Your task to perform on an android device: turn on translation in the chrome app Image 0: 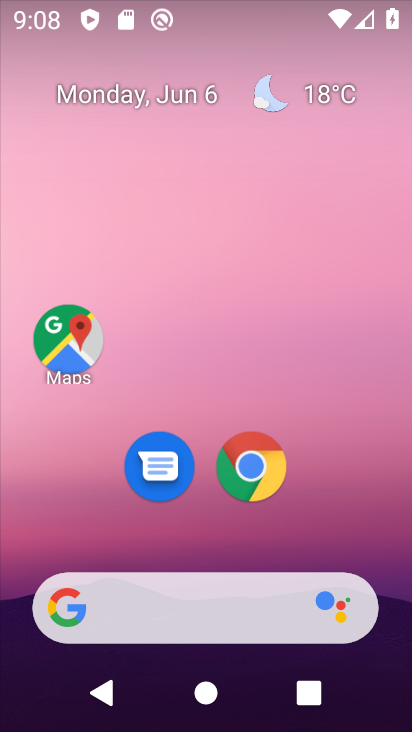
Step 0: drag from (189, 530) to (157, 176)
Your task to perform on an android device: turn on translation in the chrome app Image 1: 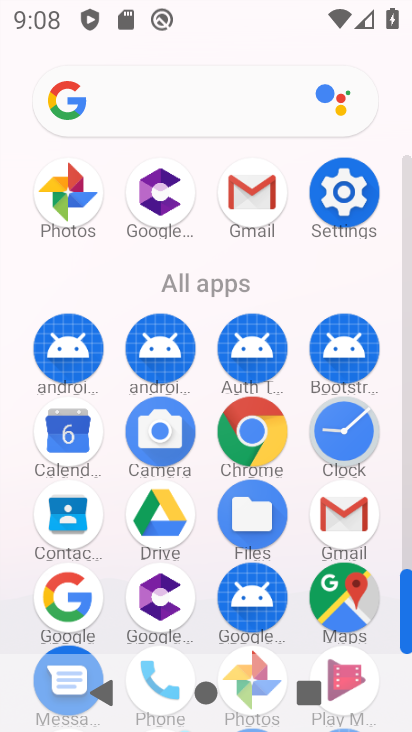
Step 1: click (267, 436)
Your task to perform on an android device: turn on translation in the chrome app Image 2: 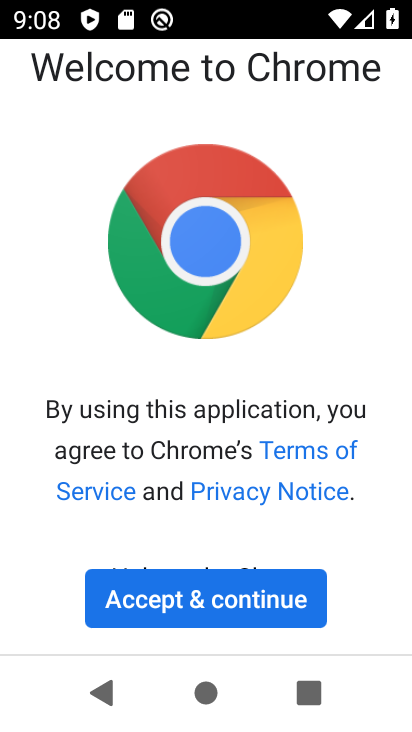
Step 2: click (172, 616)
Your task to perform on an android device: turn on translation in the chrome app Image 3: 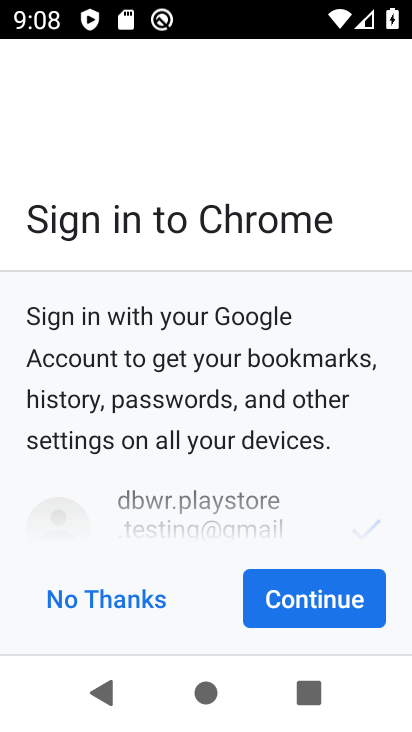
Step 3: click (279, 610)
Your task to perform on an android device: turn on translation in the chrome app Image 4: 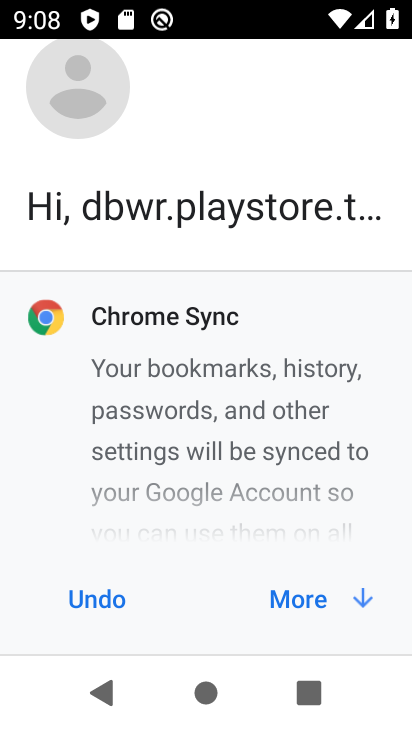
Step 4: click (292, 596)
Your task to perform on an android device: turn on translation in the chrome app Image 5: 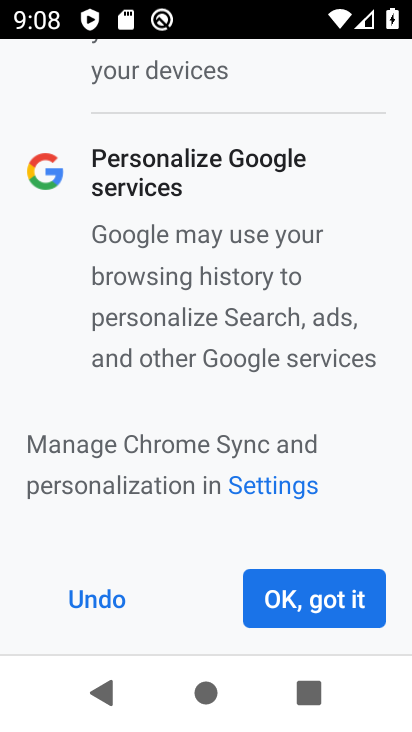
Step 5: click (291, 595)
Your task to perform on an android device: turn on translation in the chrome app Image 6: 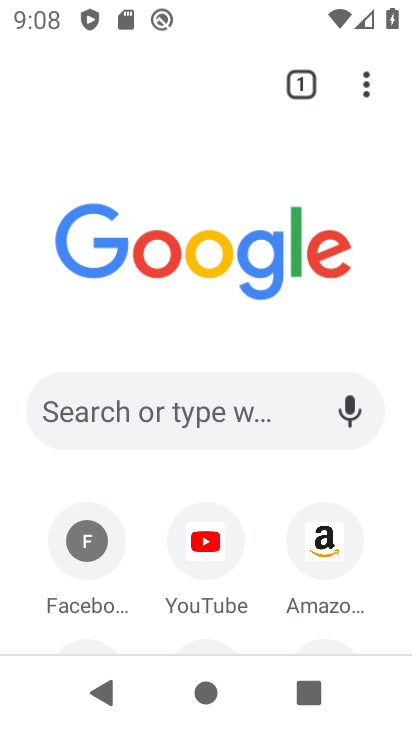
Step 6: click (198, 418)
Your task to perform on an android device: turn on translation in the chrome app Image 7: 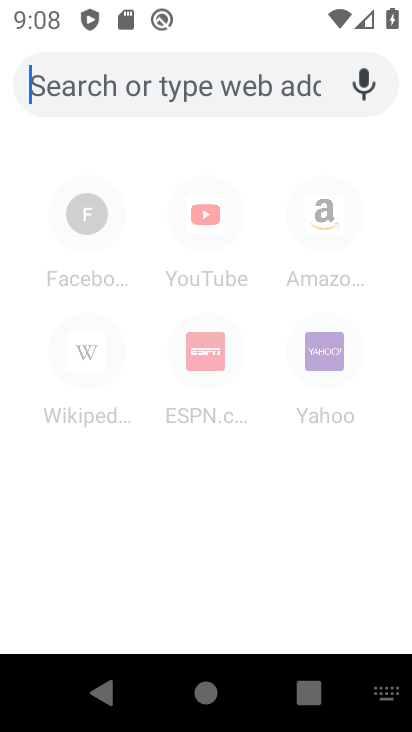
Step 7: press back button
Your task to perform on an android device: turn on translation in the chrome app Image 8: 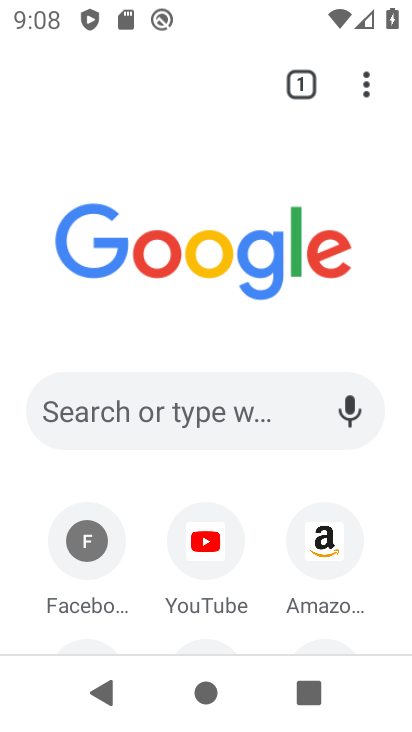
Step 8: click (373, 94)
Your task to perform on an android device: turn on translation in the chrome app Image 9: 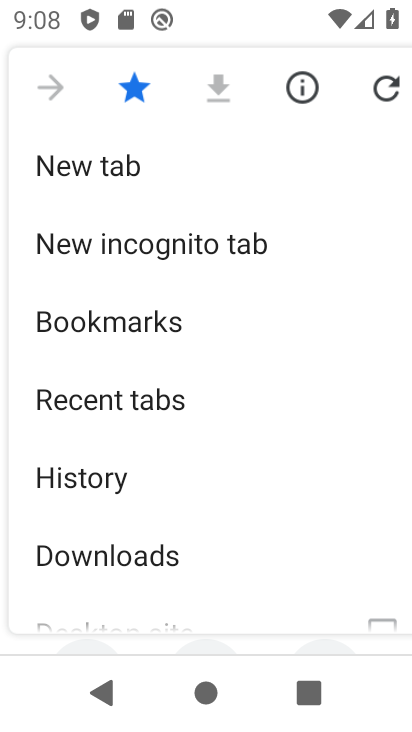
Step 9: drag from (191, 543) to (148, 229)
Your task to perform on an android device: turn on translation in the chrome app Image 10: 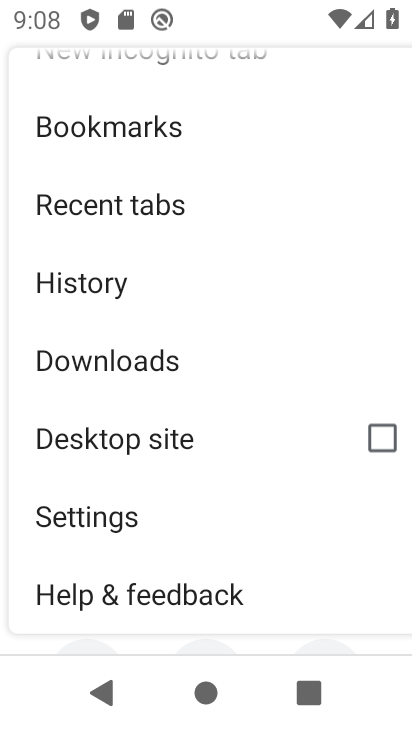
Step 10: click (96, 515)
Your task to perform on an android device: turn on translation in the chrome app Image 11: 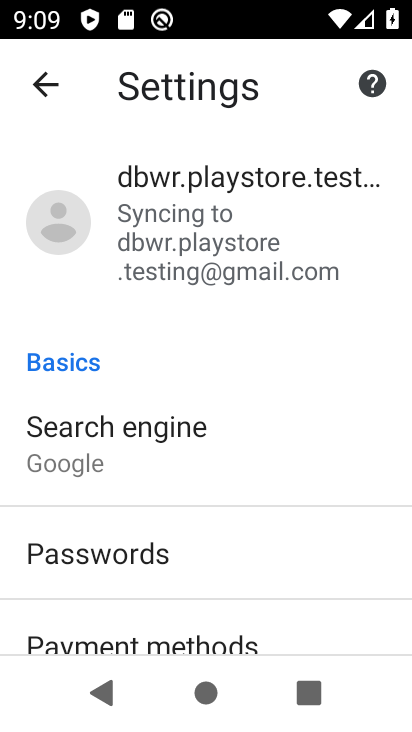
Step 11: drag from (185, 608) to (200, 355)
Your task to perform on an android device: turn on translation in the chrome app Image 12: 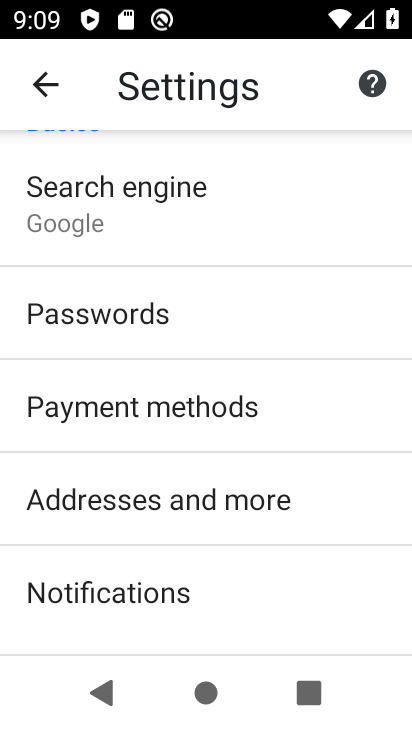
Step 12: drag from (240, 519) to (233, 331)
Your task to perform on an android device: turn on translation in the chrome app Image 13: 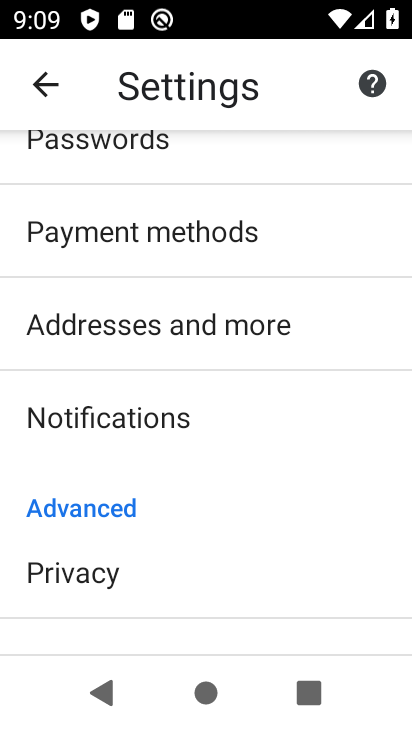
Step 13: drag from (134, 540) to (203, 252)
Your task to perform on an android device: turn on translation in the chrome app Image 14: 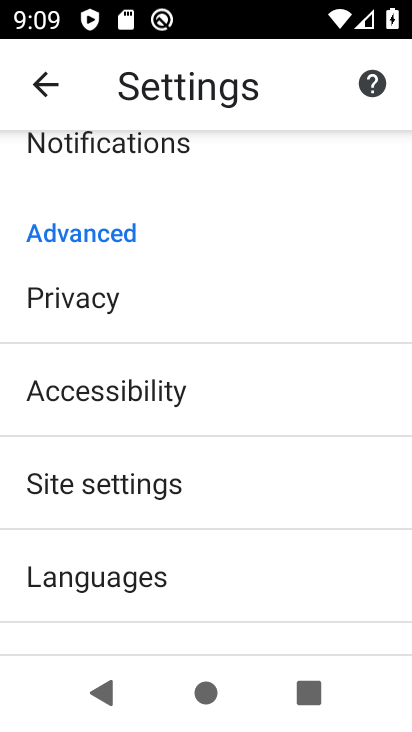
Step 14: click (96, 575)
Your task to perform on an android device: turn on translation in the chrome app Image 15: 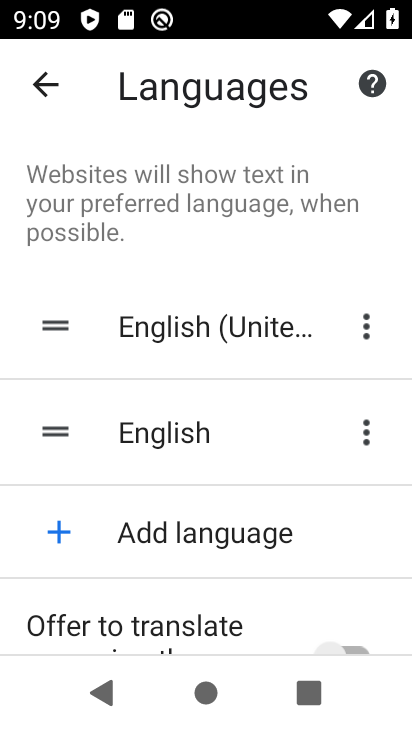
Step 15: drag from (187, 608) to (197, 257)
Your task to perform on an android device: turn on translation in the chrome app Image 16: 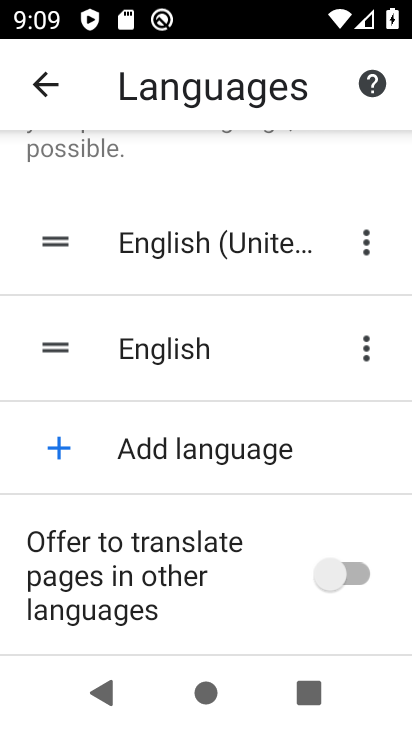
Step 16: click (356, 577)
Your task to perform on an android device: turn on translation in the chrome app Image 17: 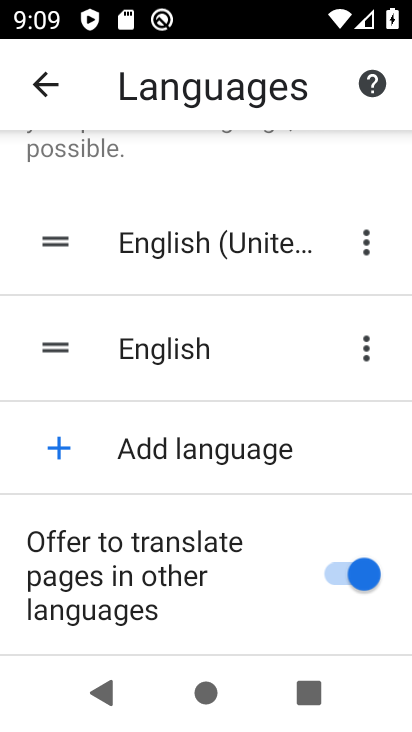
Step 17: task complete